Your task to perform on an android device: turn on the 24-hour format for clock Image 0: 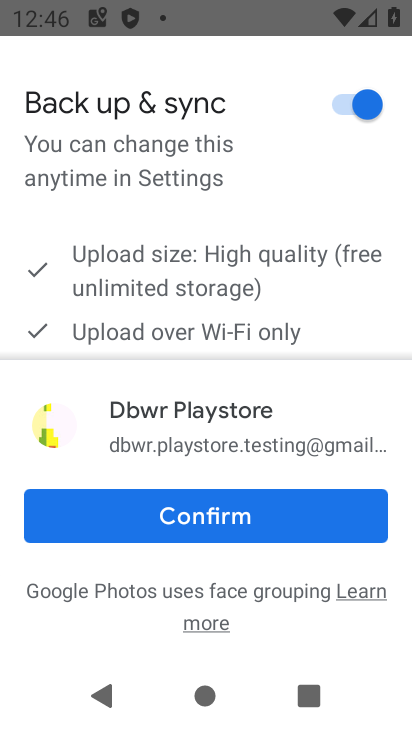
Step 0: press home button
Your task to perform on an android device: turn on the 24-hour format for clock Image 1: 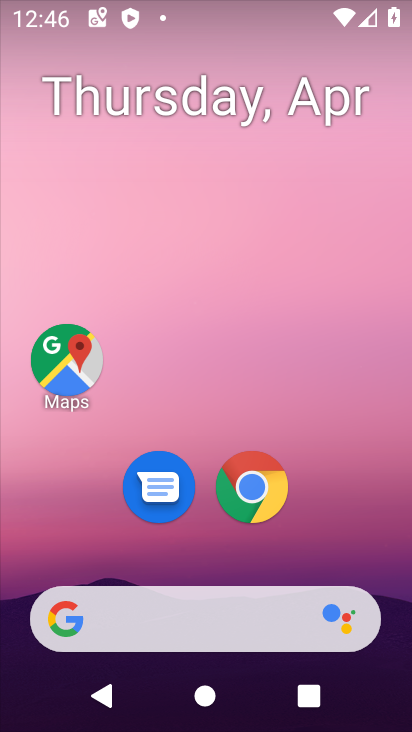
Step 1: drag from (345, 511) to (345, 48)
Your task to perform on an android device: turn on the 24-hour format for clock Image 2: 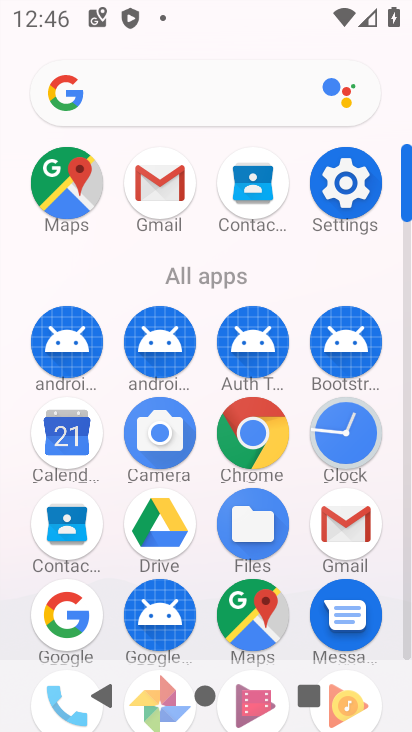
Step 2: click (328, 423)
Your task to perform on an android device: turn on the 24-hour format for clock Image 3: 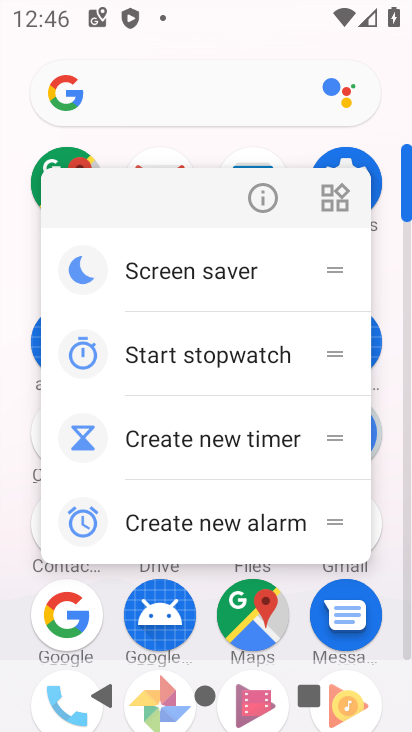
Step 3: click (382, 438)
Your task to perform on an android device: turn on the 24-hour format for clock Image 4: 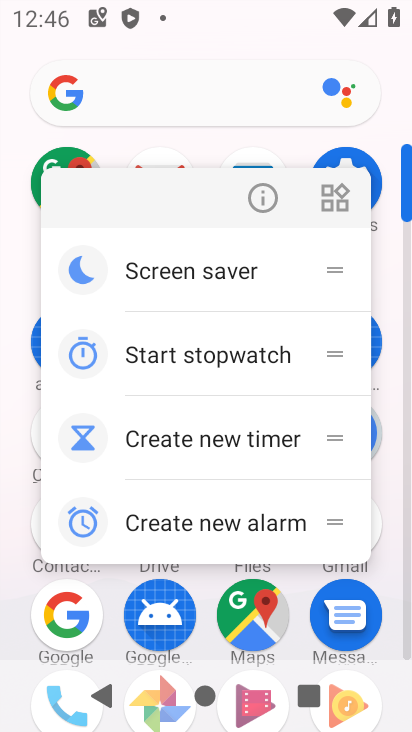
Step 4: click (376, 437)
Your task to perform on an android device: turn on the 24-hour format for clock Image 5: 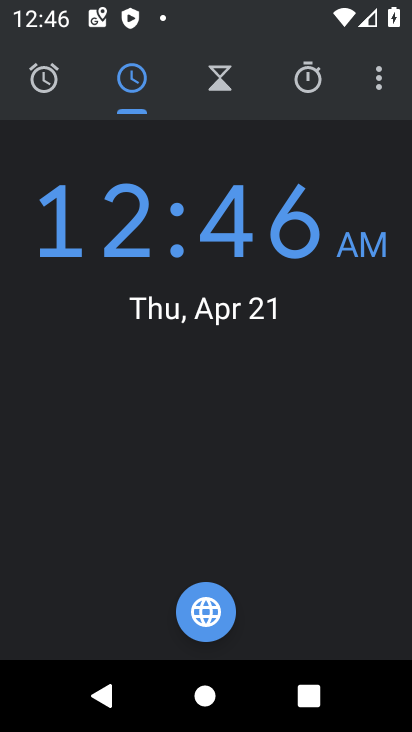
Step 5: click (369, 99)
Your task to perform on an android device: turn on the 24-hour format for clock Image 6: 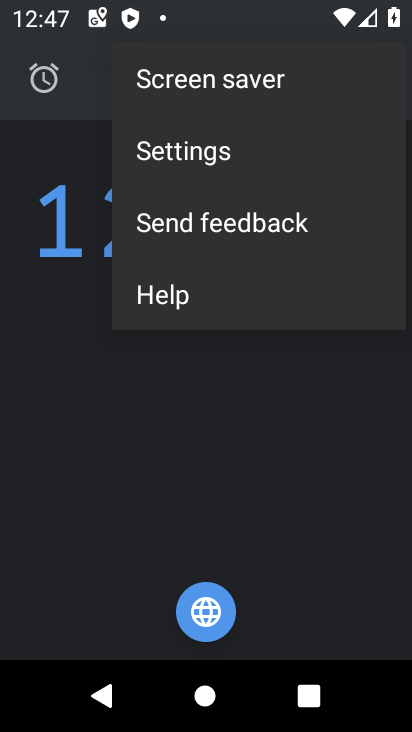
Step 6: click (322, 134)
Your task to perform on an android device: turn on the 24-hour format for clock Image 7: 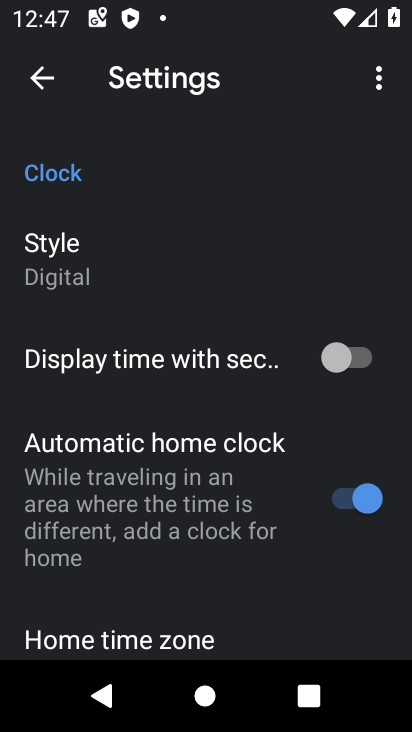
Step 7: drag from (140, 488) to (140, 335)
Your task to perform on an android device: turn on the 24-hour format for clock Image 8: 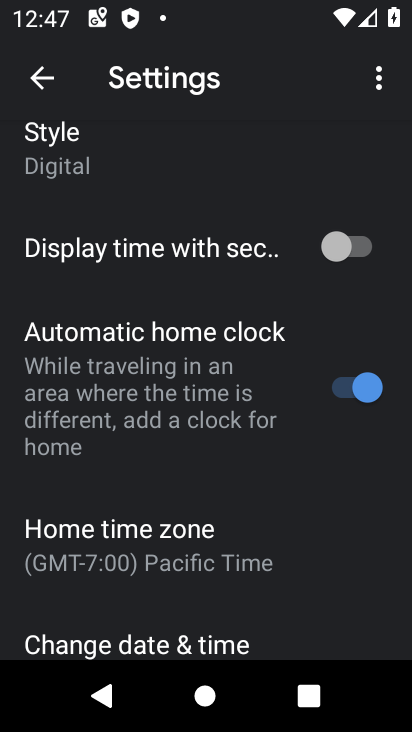
Step 8: click (117, 639)
Your task to perform on an android device: turn on the 24-hour format for clock Image 9: 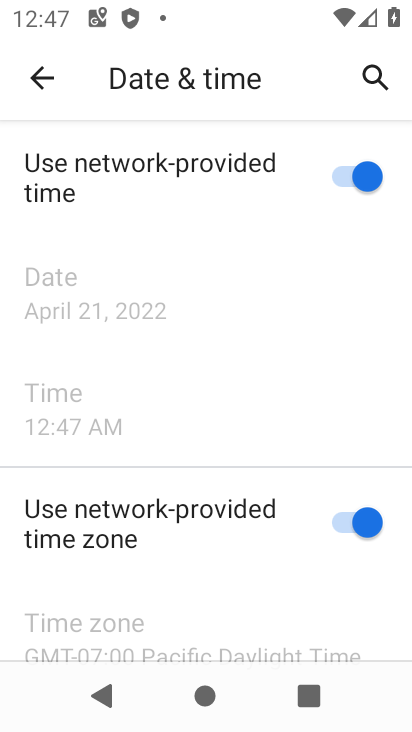
Step 9: drag from (81, 638) to (96, 423)
Your task to perform on an android device: turn on the 24-hour format for clock Image 10: 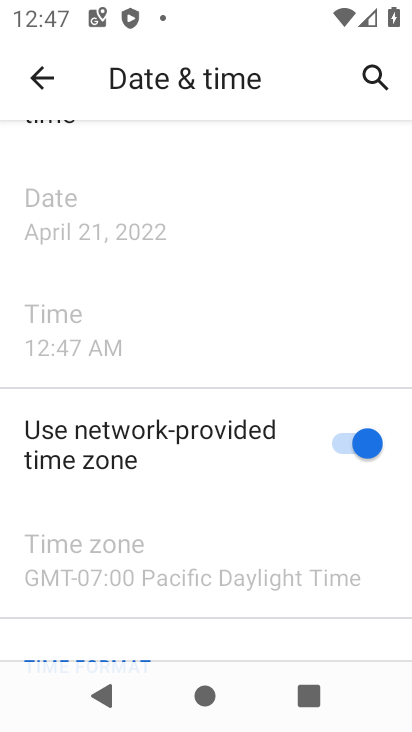
Step 10: drag from (130, 537) to (167, 353)
Your task to perform on an android device: turn on the 24-hour format for clock Image 11: 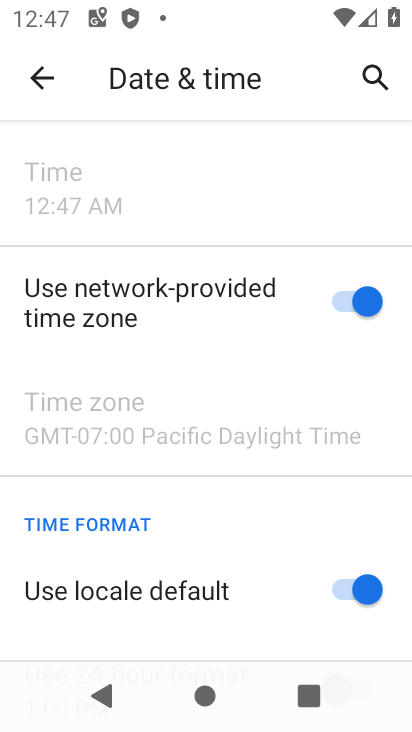
Step 11: drag from (168, 613) to (187, 414)
Your task to perform on an android device: turn on the 24-hour format for clock Image 12: 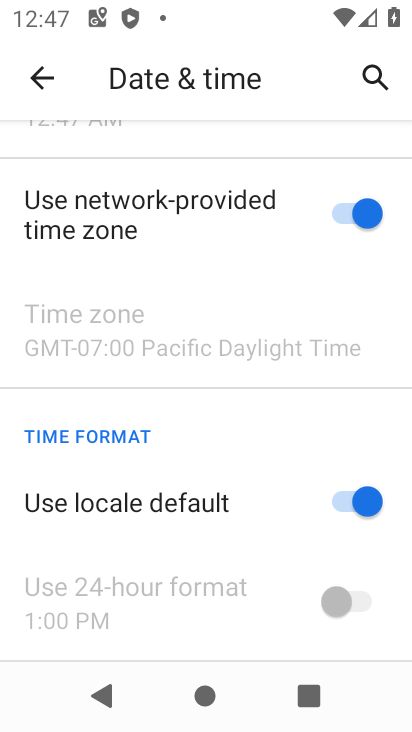
Step 12: drag from (177, 572) to (164, 454)
Your task to perform on an android device: turn on the 24-hour format for clock Image 13: 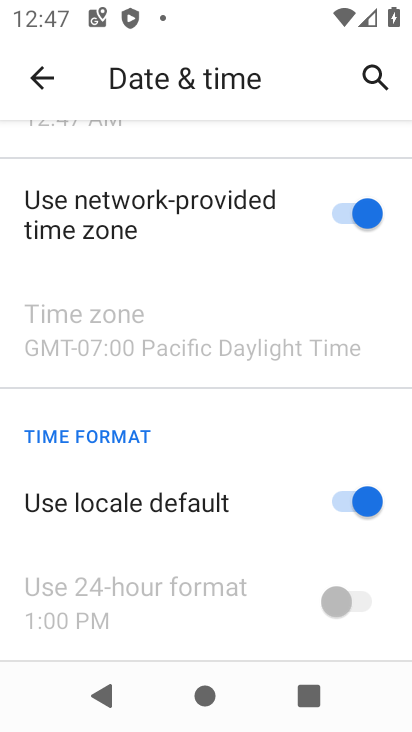
Step 13: click (339, 504)
Your task to perform on an android device: turn on the 24-hour format for clock Image 14: 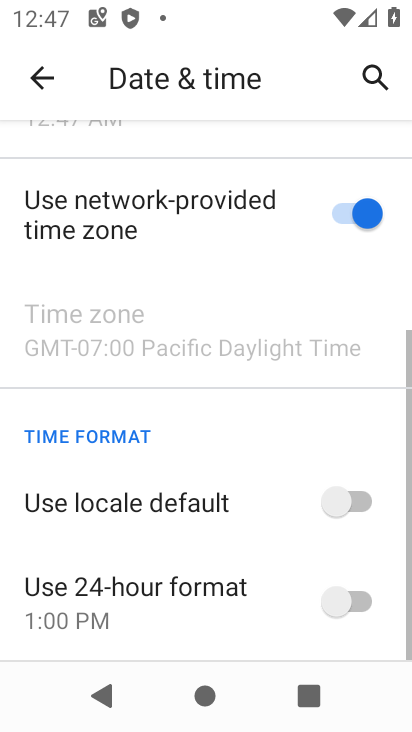
Step 14: click (363, 604)
Your task to perform on an android device: turn on the 24-hour format for clock Image 15: 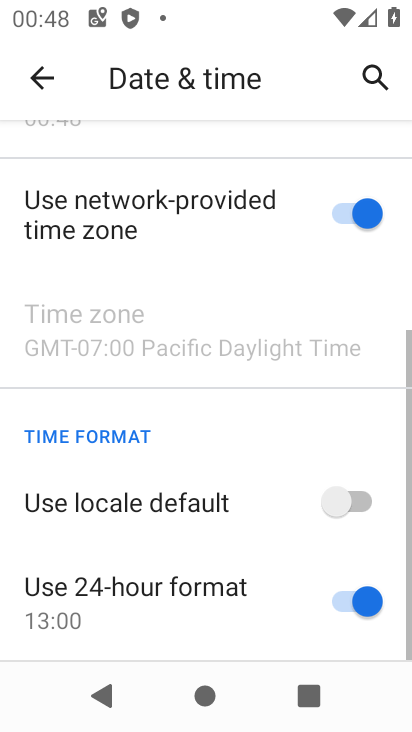
Step 15: task complete